Your task to perform on an android device: turn on sleep mode Image 0: 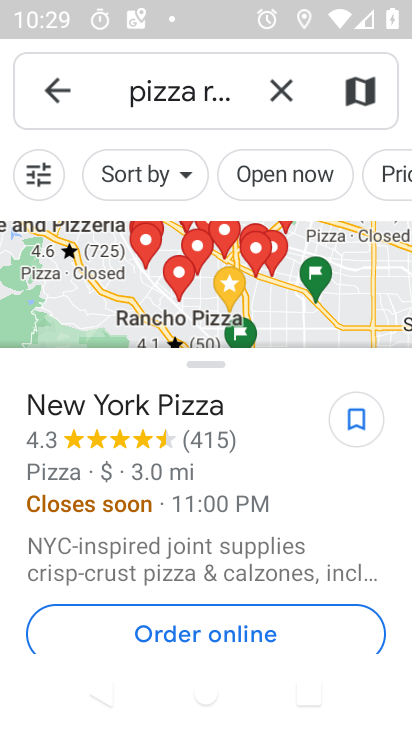
Step 0: press home button
Your task to perform on an android device: turn on sleep mode Image 1: 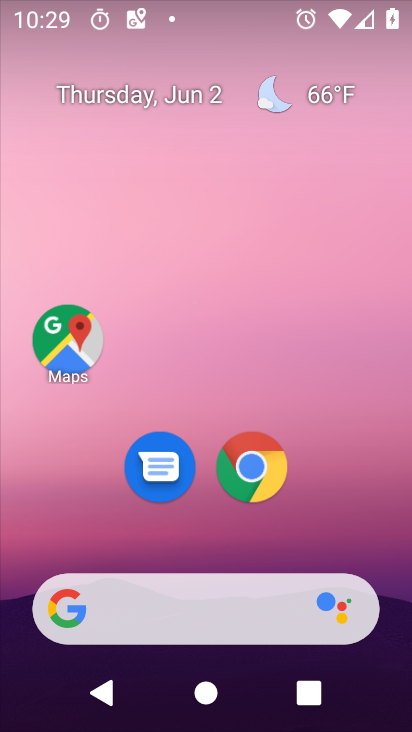
Step 1: drag from (28, 525) to (410, 113)
Your task to perform on an android device: turn on sleep mode Image 2: 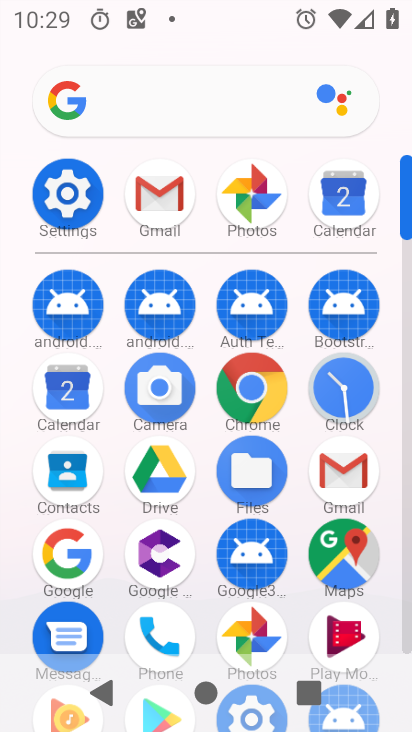
Step 2: click (46, 210)
Your task to perform on an android device: turn on sleep mode Image 3: 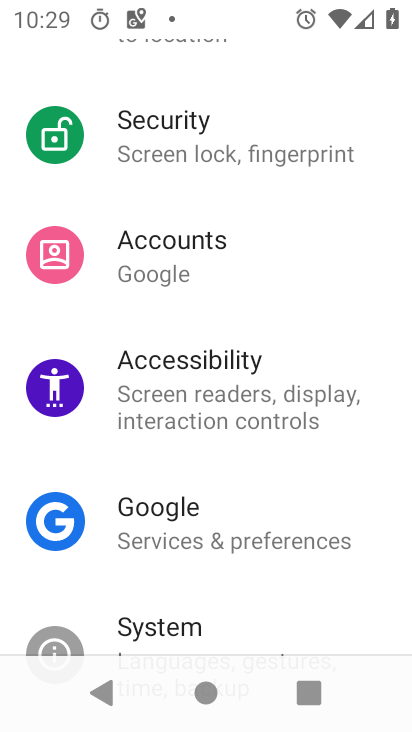
Step 3: drag from (189, 157) to (183, 572)
Your task to perform on an android device: turn on sleep mode Image 4: 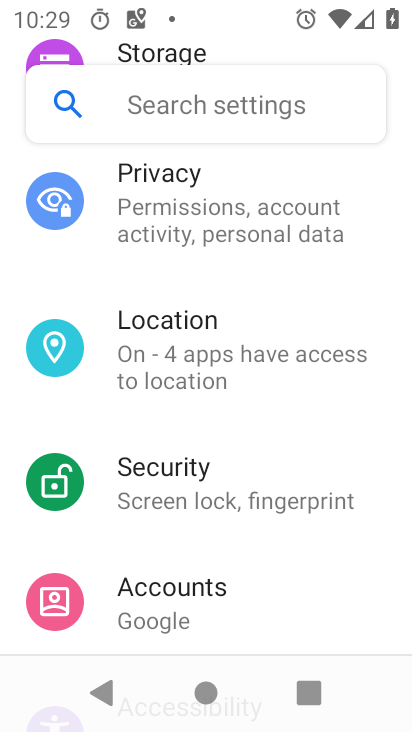
Step 4: drag from (241, 178) to (233, 628)
Your task to perform on an android device: turn on sleep mode Image 5: 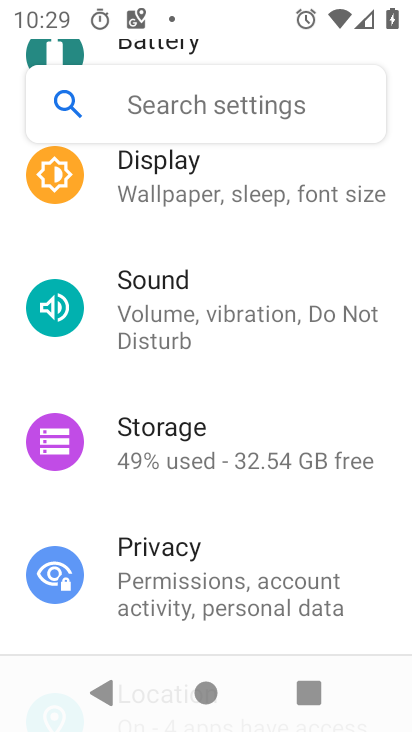
Step 5: click (193, 191)
Your task to perform on an android device: turn on sleep mode Image 6: 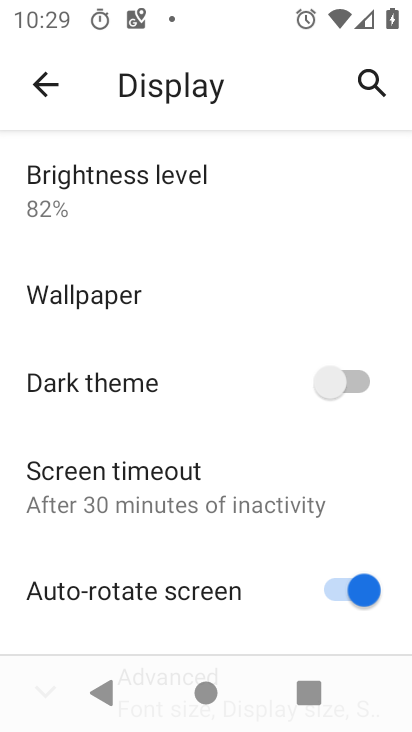
Step 6: task complete